Your task to perform on an android device: move a message to another label in the gmail app Image 0: 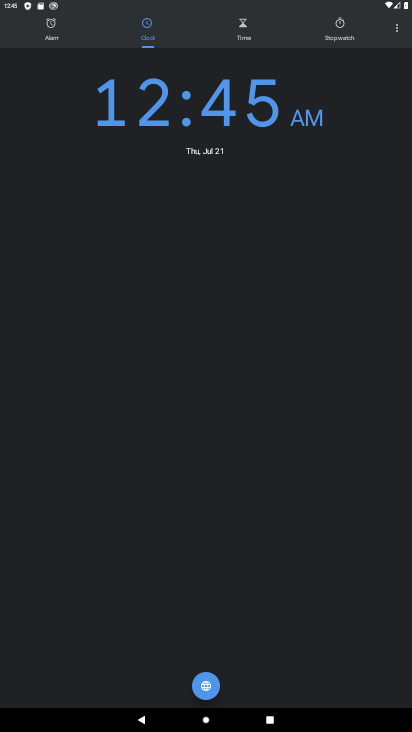
Step 0: press home button
Your task to perform on an android device: move a message to another label in the gmail app Image 1: 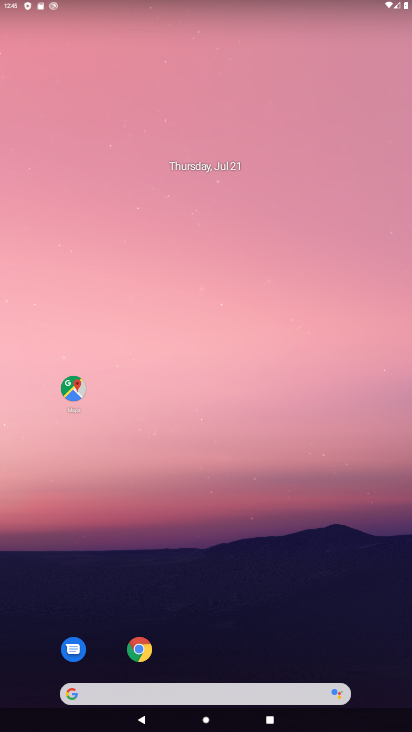
Step 1: drag from (252, 682) to (185, 228)
Your task to perform on an android device: move a message to another label in the gmail app Image 2: 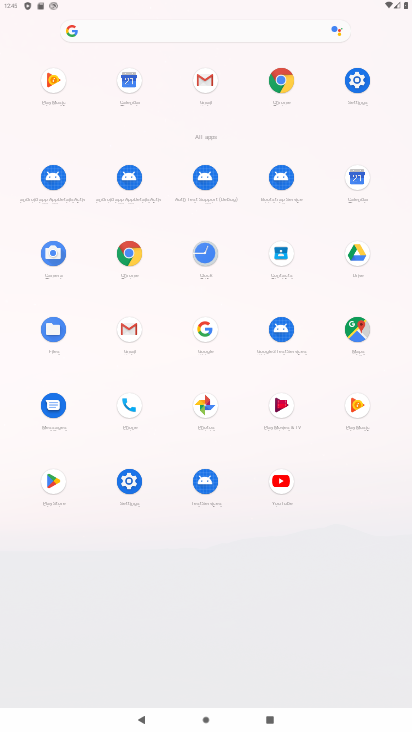
Step 2: click (144, 329)
Your task to perform on an android device: move a message to another label in the gmail app Image 3: 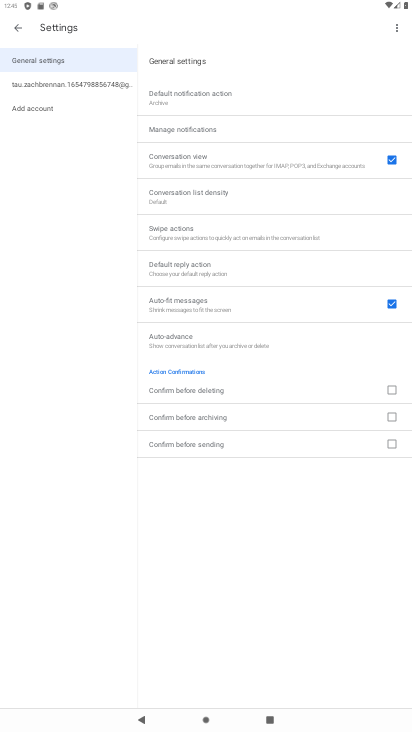
Step 3: click (16, 26)
Your task to perform on an android device: move a message to another label in the gmail app Image 4: 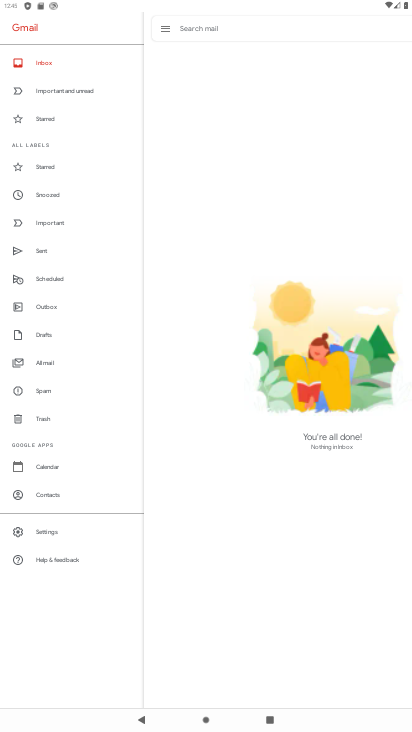
Step 4: task complete